Your task to perform on an android device: install app "Facebook" Image 0: 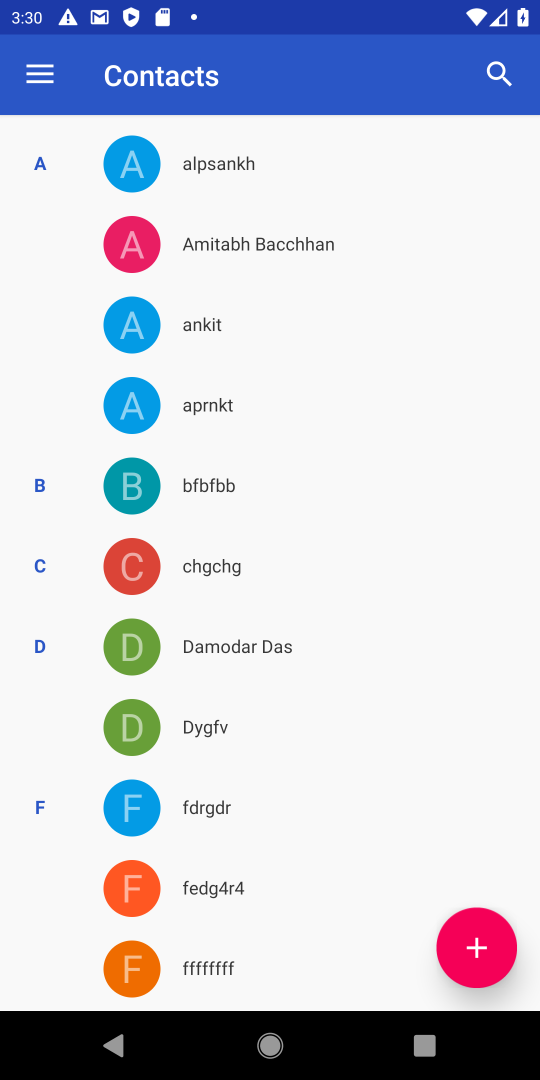
Step 0: press home button
Your task to perform on an android device: install app "Facebook" Image 1: 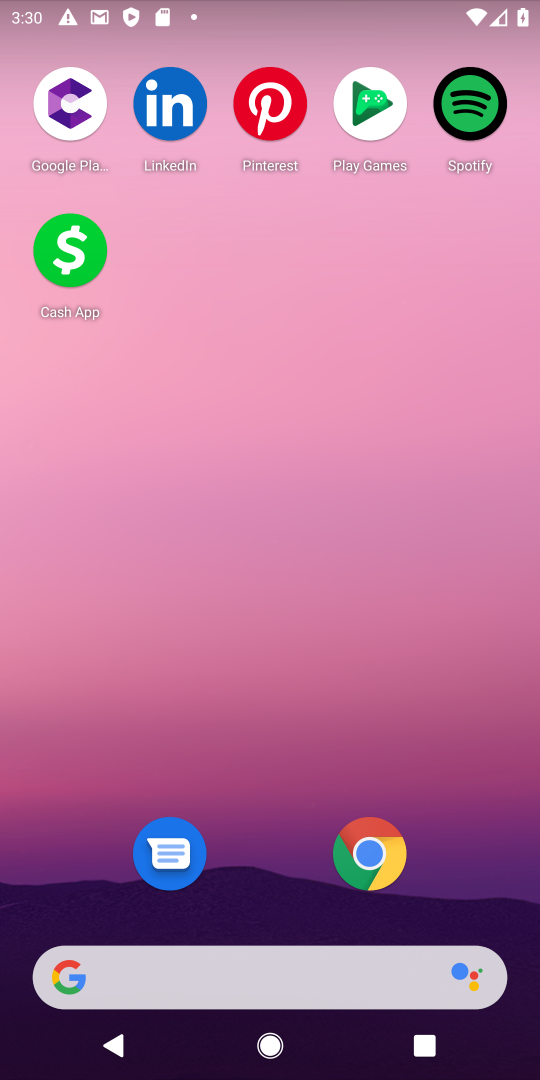
Step 1: drag from (310, 992) to (334, 587)
Your task to perform on an android device: install app "Facebook" Image 2: 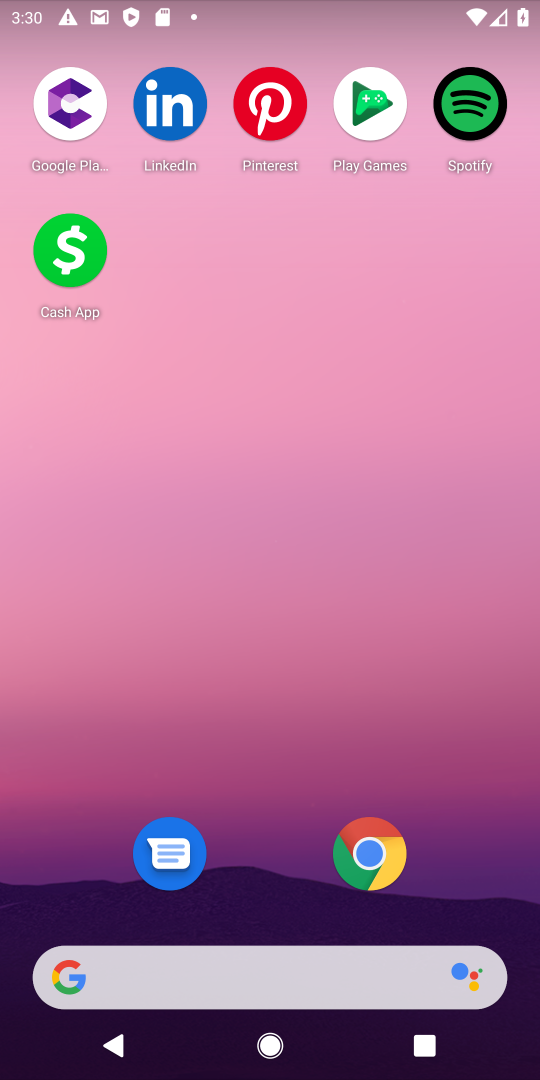
Step 2: drag from (330, 1072) to (281, 207)
Your task to perform on an android device: install app "Facebook" Image 3: 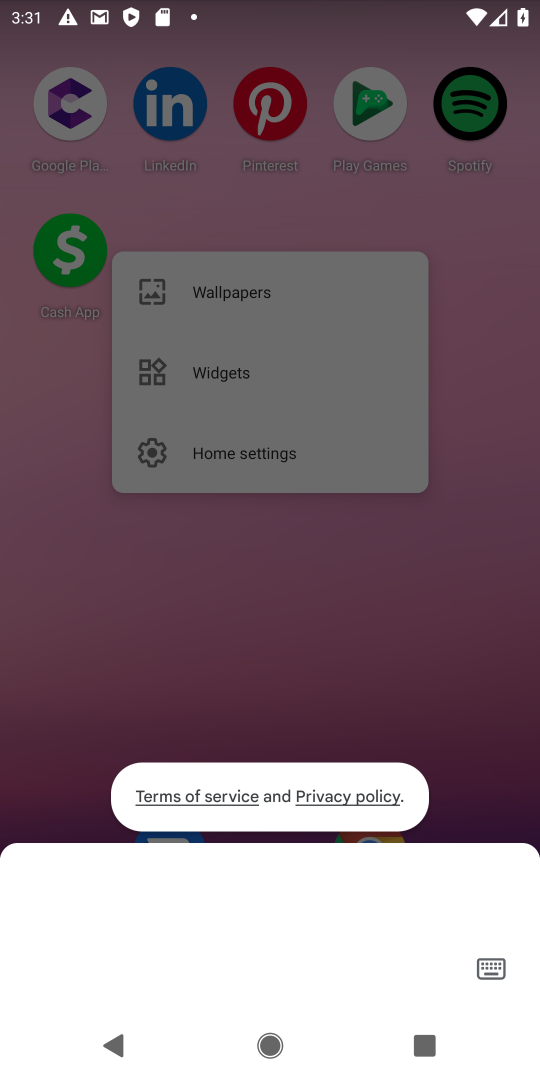
Step 3: press home button
Your task to perform on an android device: install app "Facebook" Image 4: 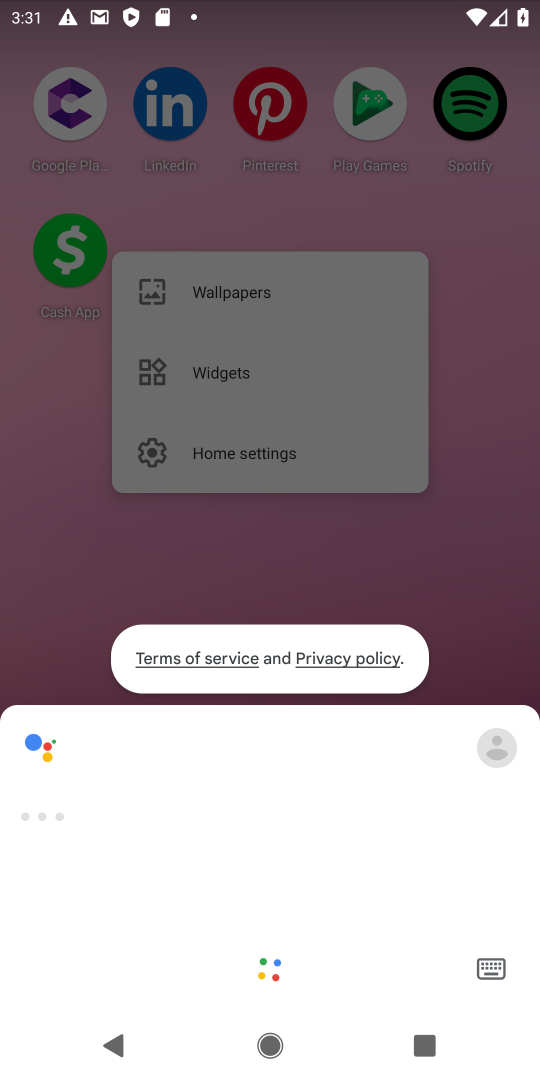
Step 4: press home button
Your task to perform on an android device: install app "Facebook" Image 5: 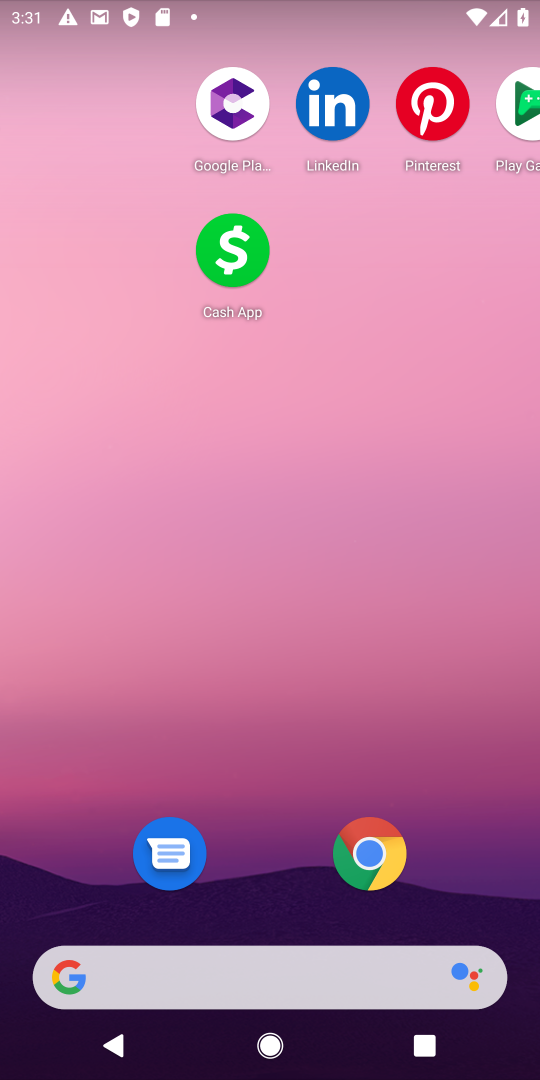
Step 5: press home button
Your task to perform on an android device: install app "Facebook" Image 6: 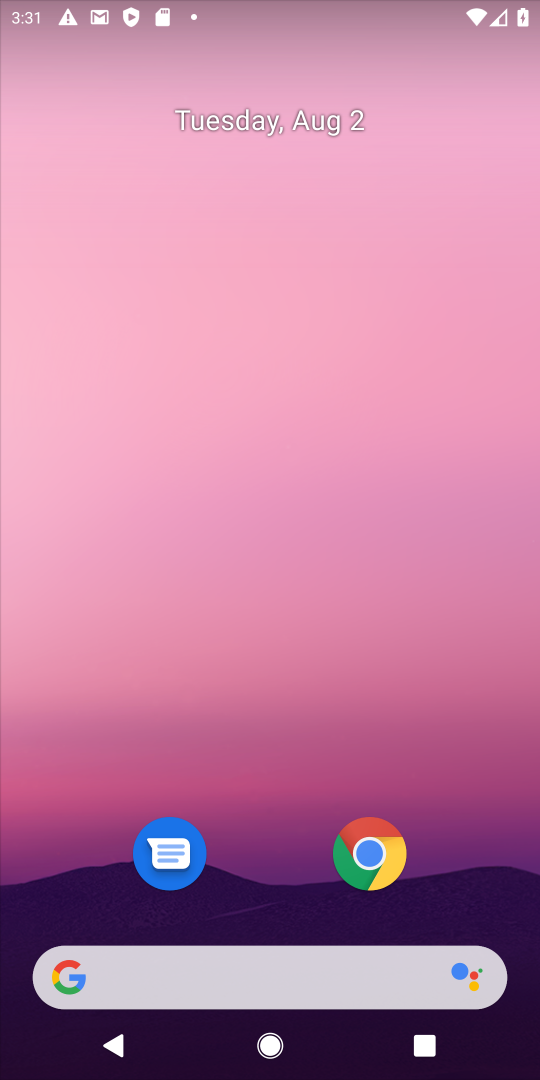
Step 6: drag from (294, 991) to (294, 415)
Your task to perform on an android device: install app "Facebook" Image 7: 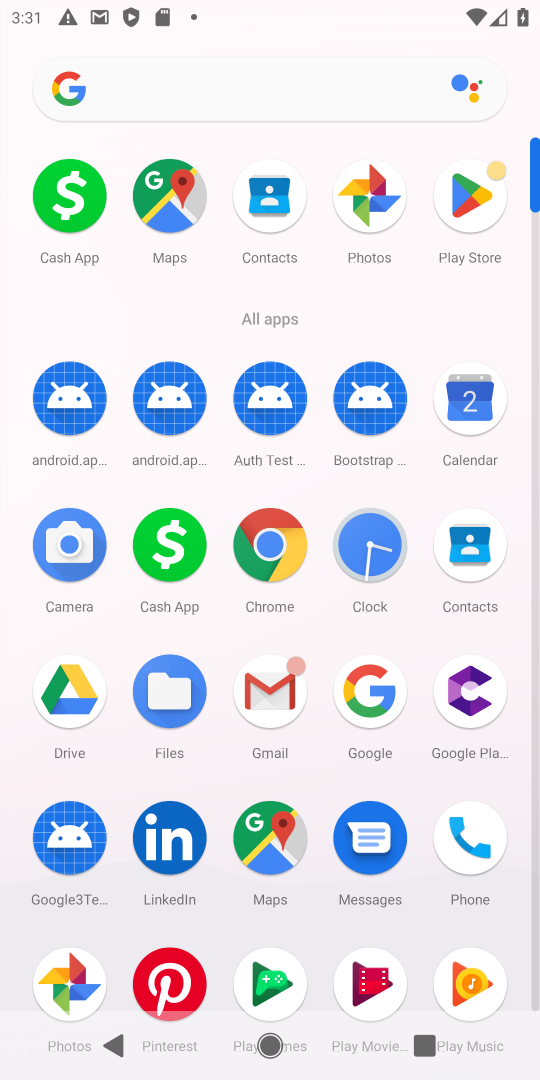
Step 7: click (469, 192)
Your task to perform on an android device: install app "Facebook" Image 8: 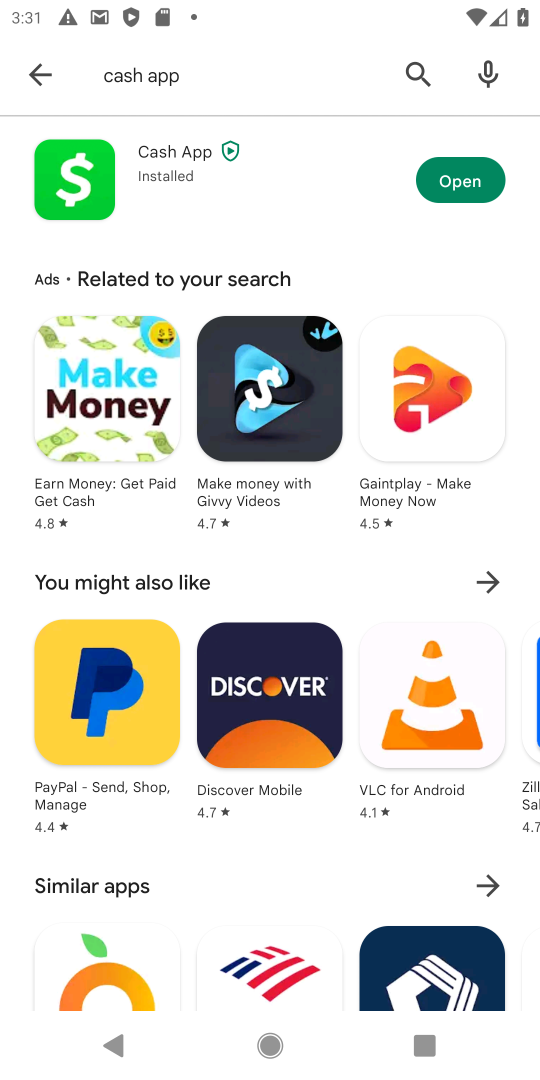
Step 8: click (419, 69)
Your task to perform on an android device: install app "Facebook" Image 9: 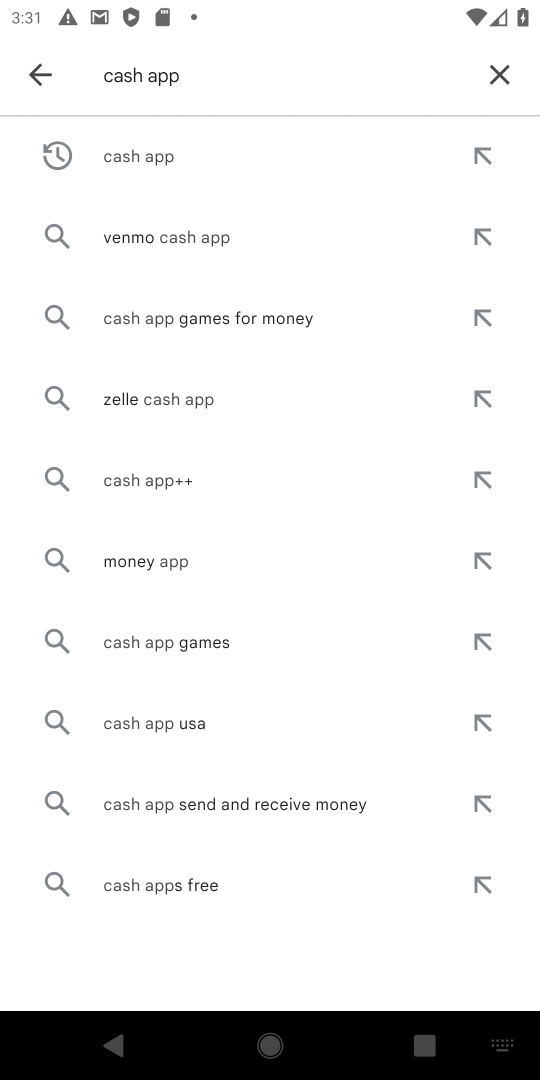
Step 9: click (513, 58)
Your task to perform on an android device: install app "Facebook" Image 10: 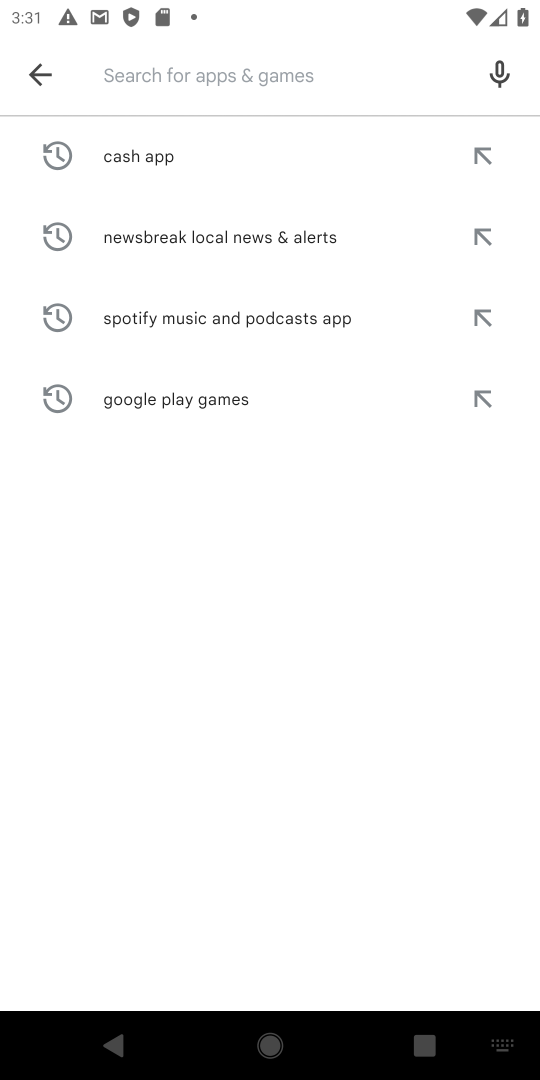
Step 10: type "Facebook"
Your task to perform on an android device: install app "Facebook" Image 11: 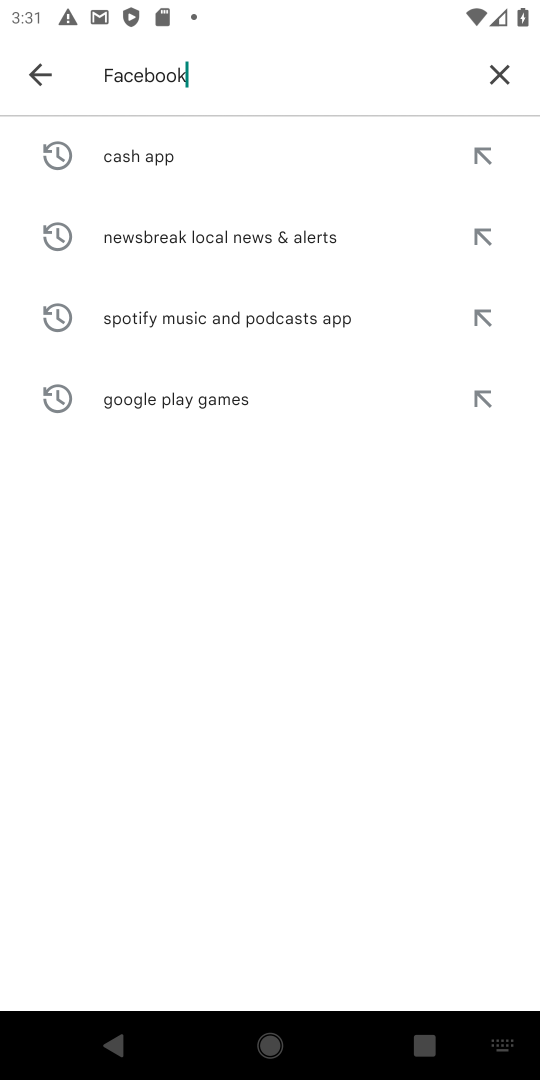
Step 11: type ""
Your task to perform on an android device: install app "Facebook" Image 12: 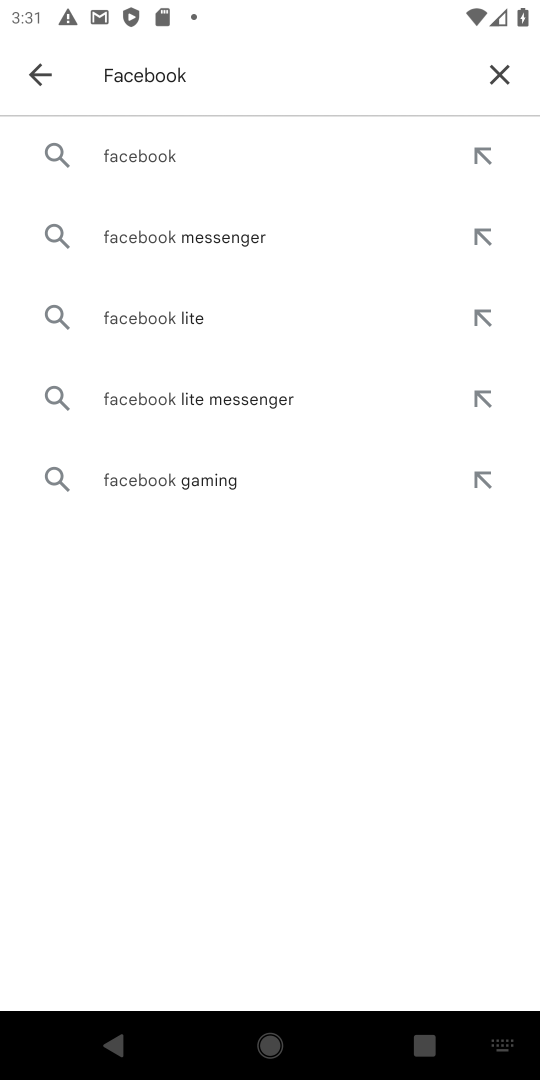
Step 12: click (140, 159)
Your task to perform on an android device: install app "Facebook" Image 13: 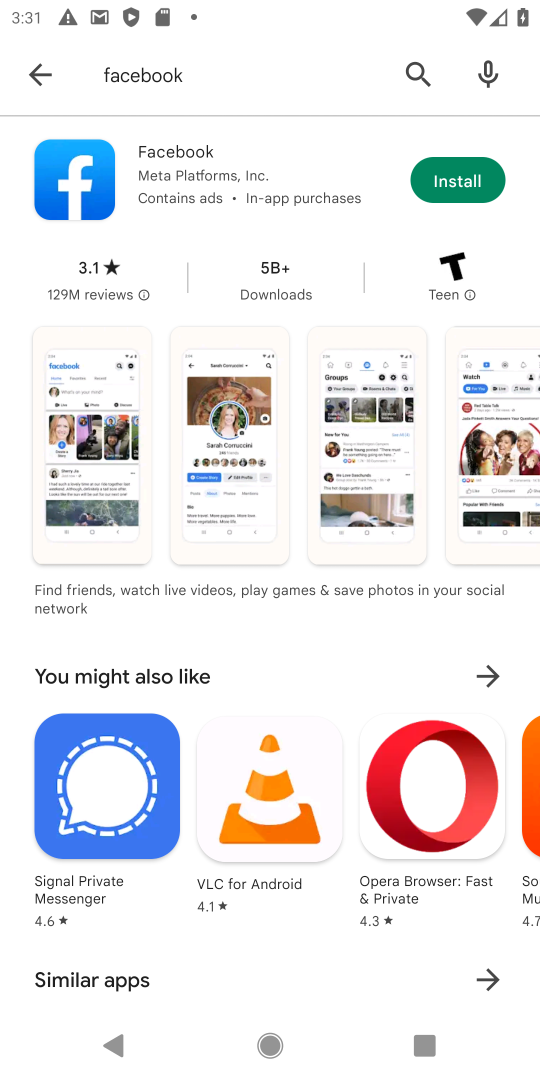
Step 13: click (477, 180)
Your task to perform on an android device: install app "Facebook" Image 14: 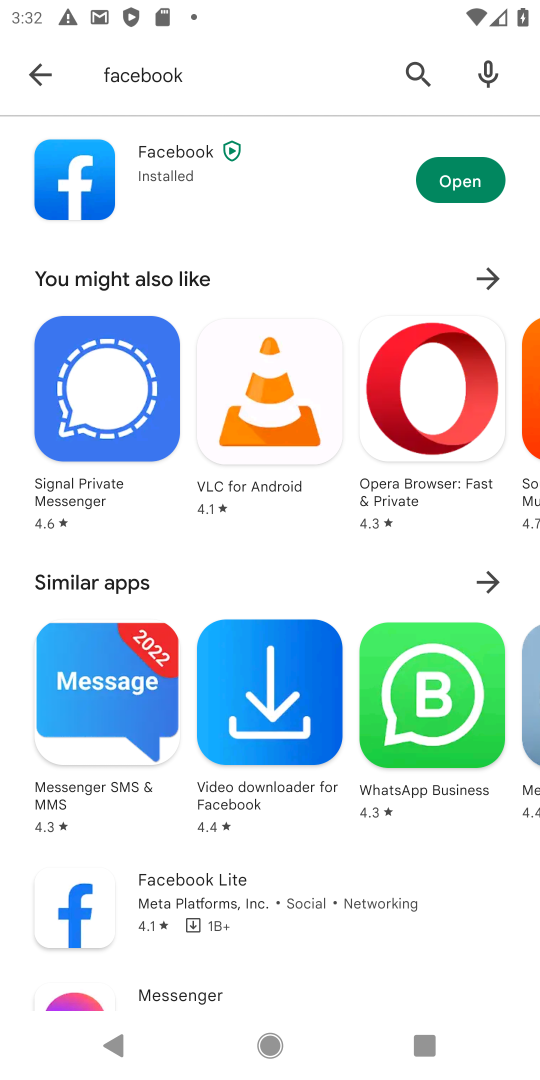
Step 14: task complete